Your task to perform on an android device: toggle data saver in the chrome app Image 0: 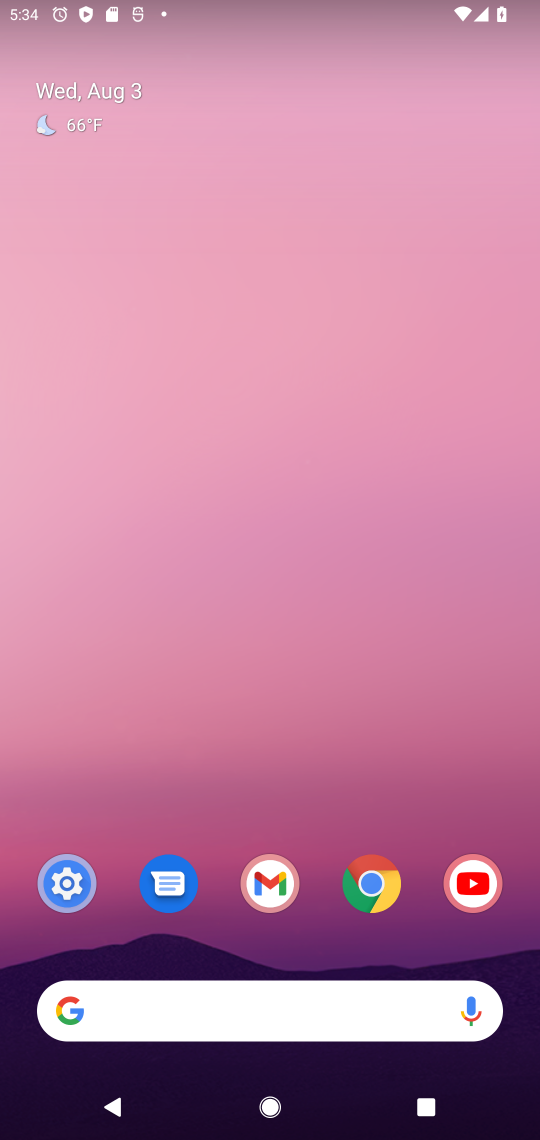
Step 0: click (348, 874)
Your task to perform on an android device: toggle data saver in the chrome app Image 1: 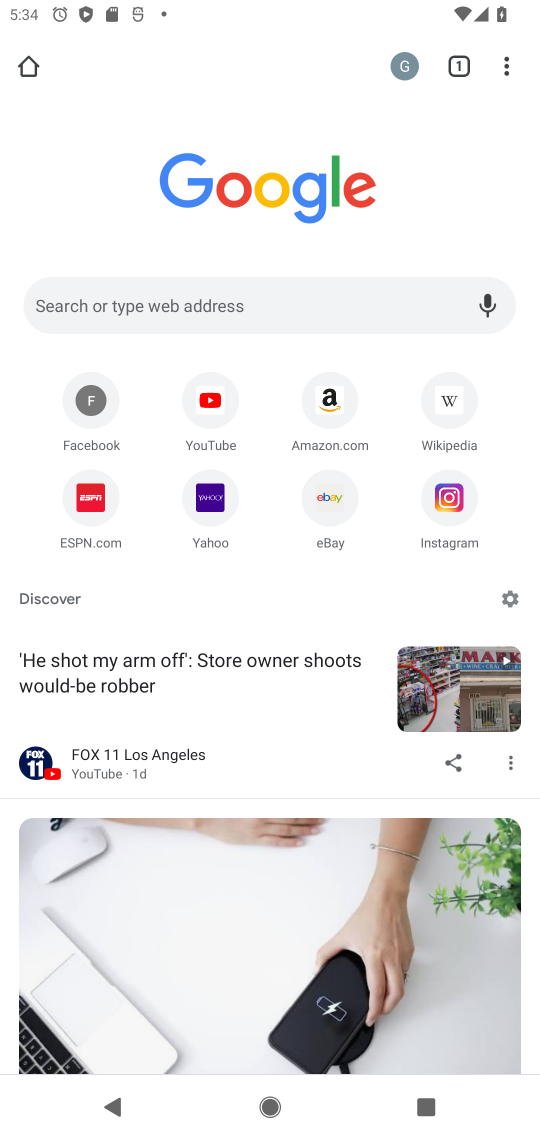
Step 1: click (511, 62)
Your task to perform on an android device: toggle data saver in the chrome app Image 2: 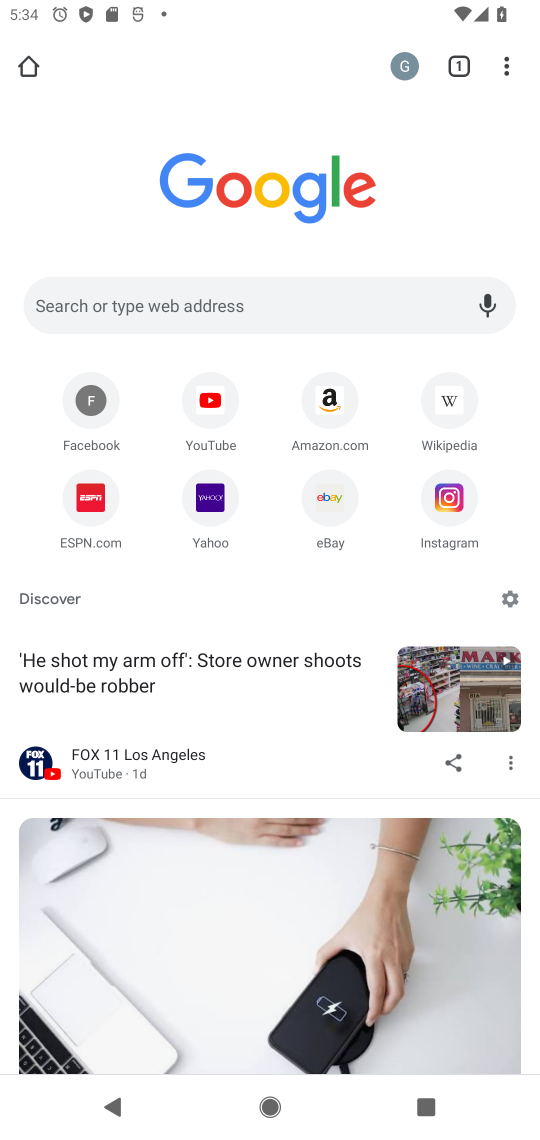
Step 2: click (509, 68)
Your task to perform on an android device: toggle data saver in the chrome app Image 3: 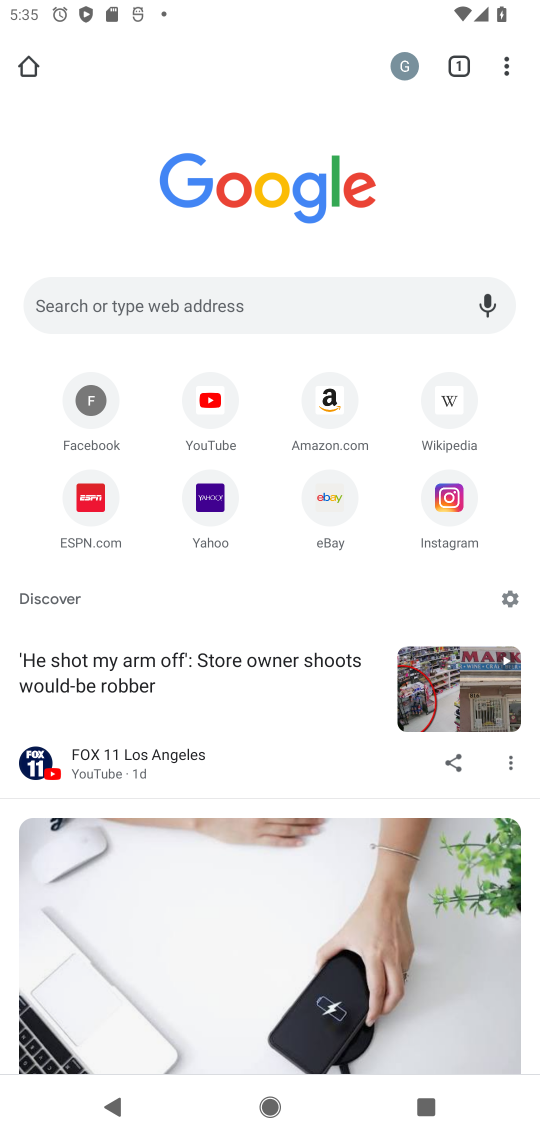
Step 3: click (494, 62)
Your task to perform on an android device: toggle data saver in the chrome app Image 4: 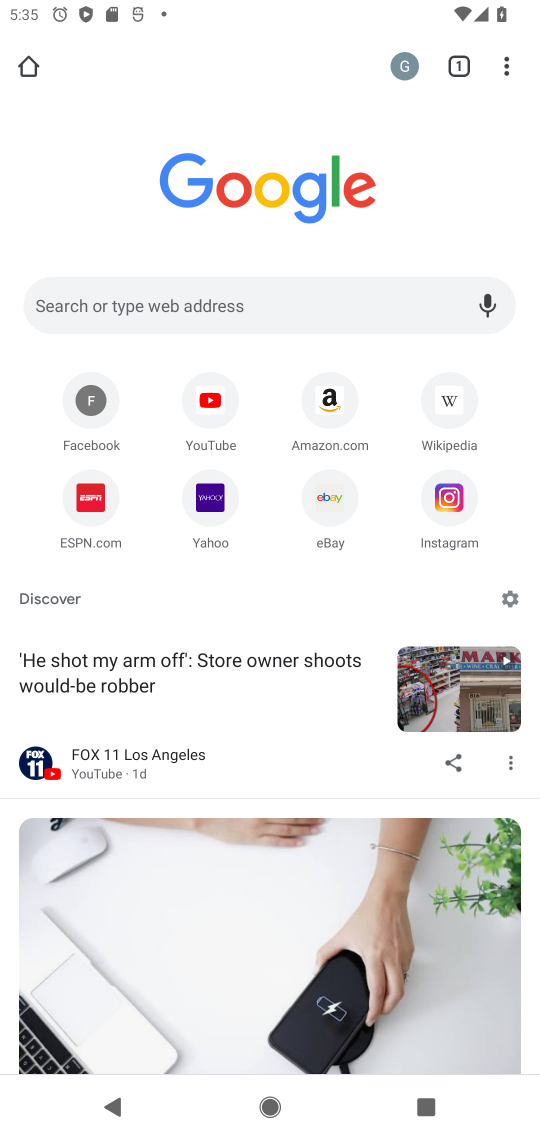
Step 4: click (496, 71)
Your task to perform on an android device: toggle data saver in the chrome app Image 5: 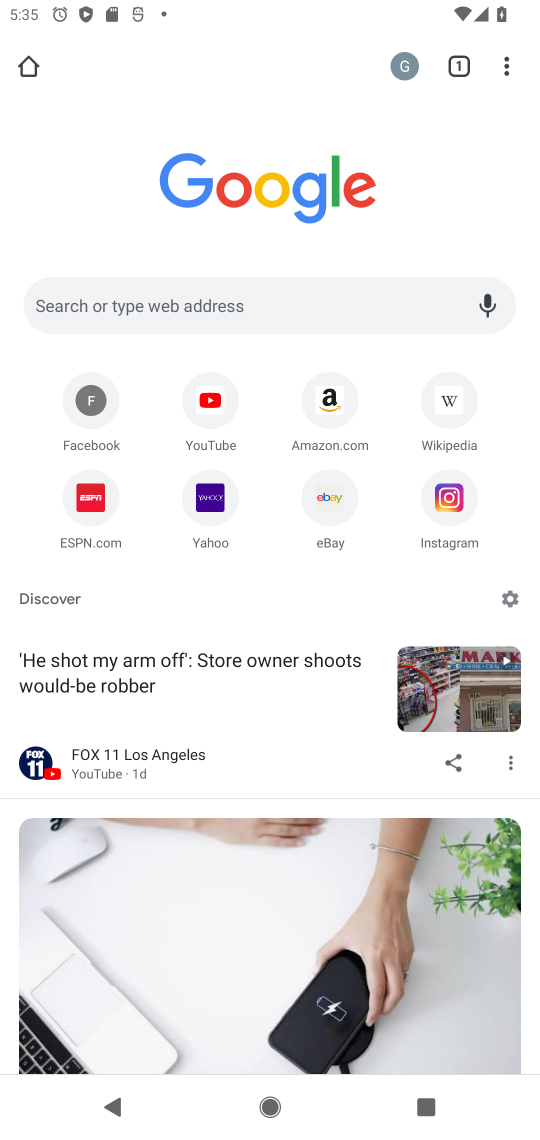
Step 5: click (517, 64)
Your task to perform on an android device: toggle data saver in the chrome app Image 6: 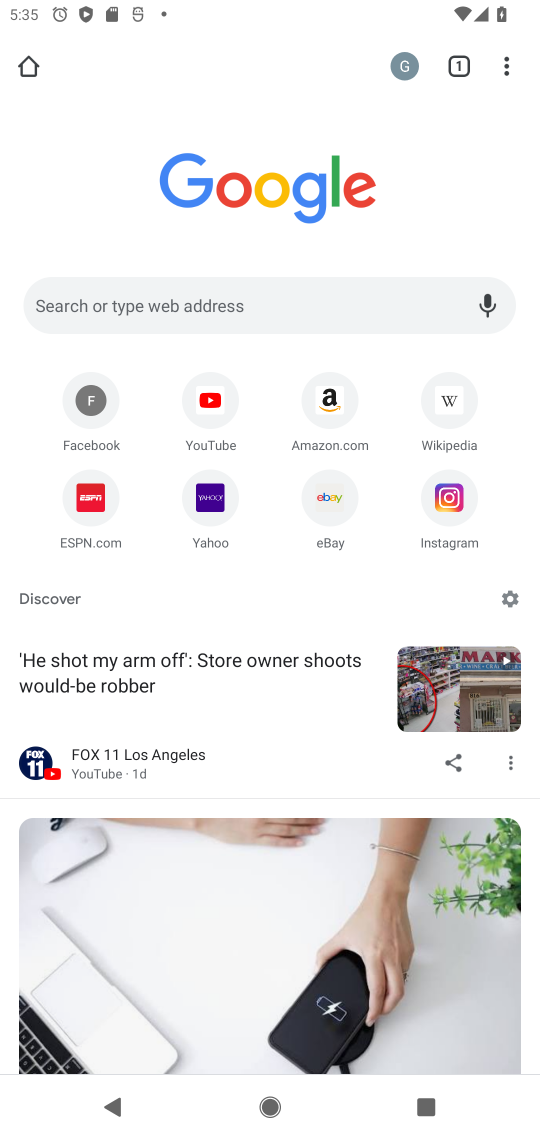
Step 6: click (509, 72)
Your task to perform on an android device: toggle data saver in the chrome app Image 7: 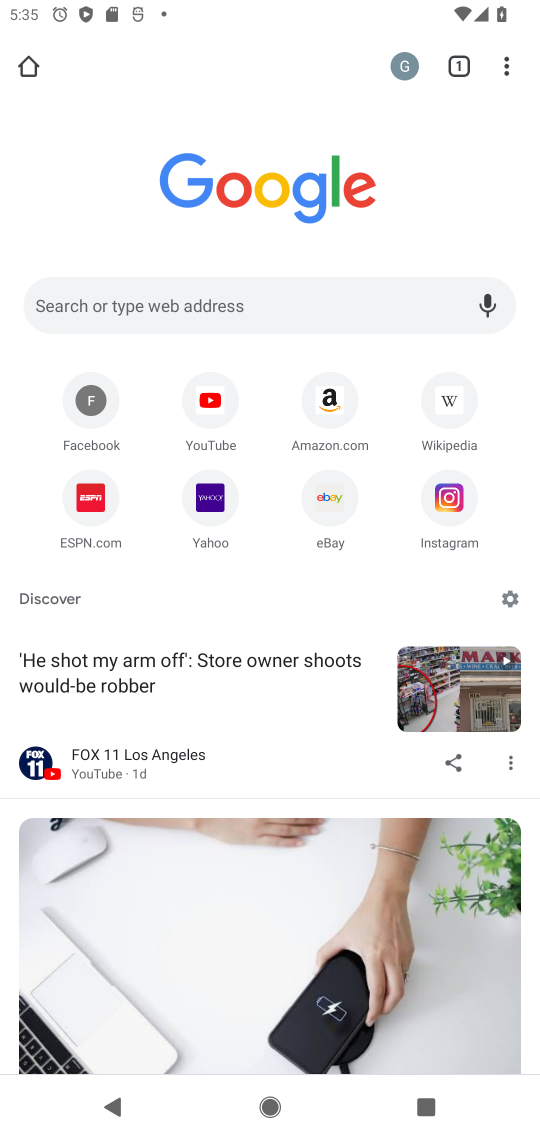
Step 7: click (498, 68)
Your task to perform on an android device: toggle data saver in the chrome app Image 8: 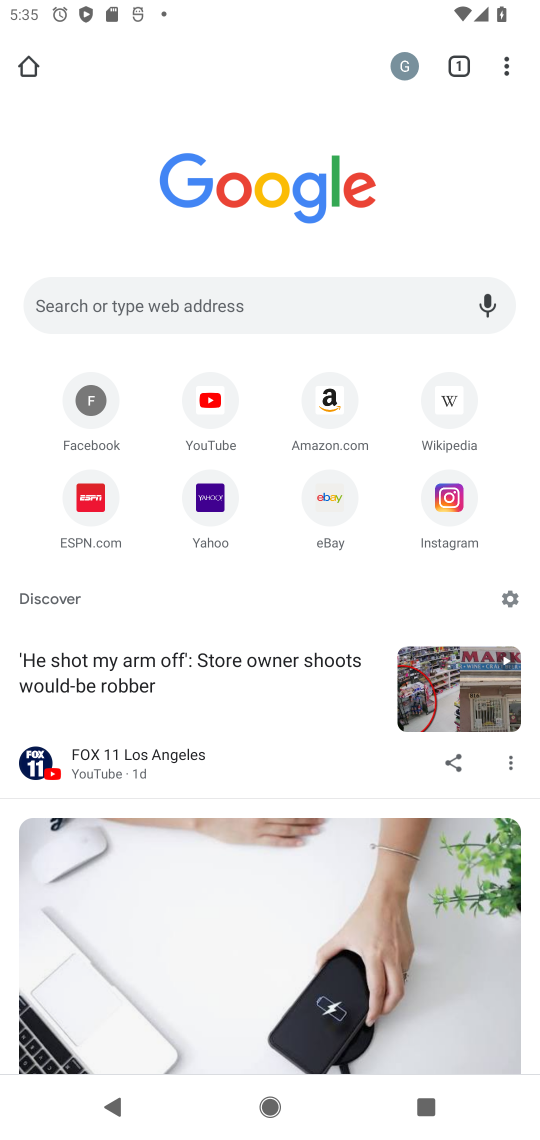
Step 8: click (510, 64)
Your task to perform on an android device: toggle data saver in the chrome app Image 9: 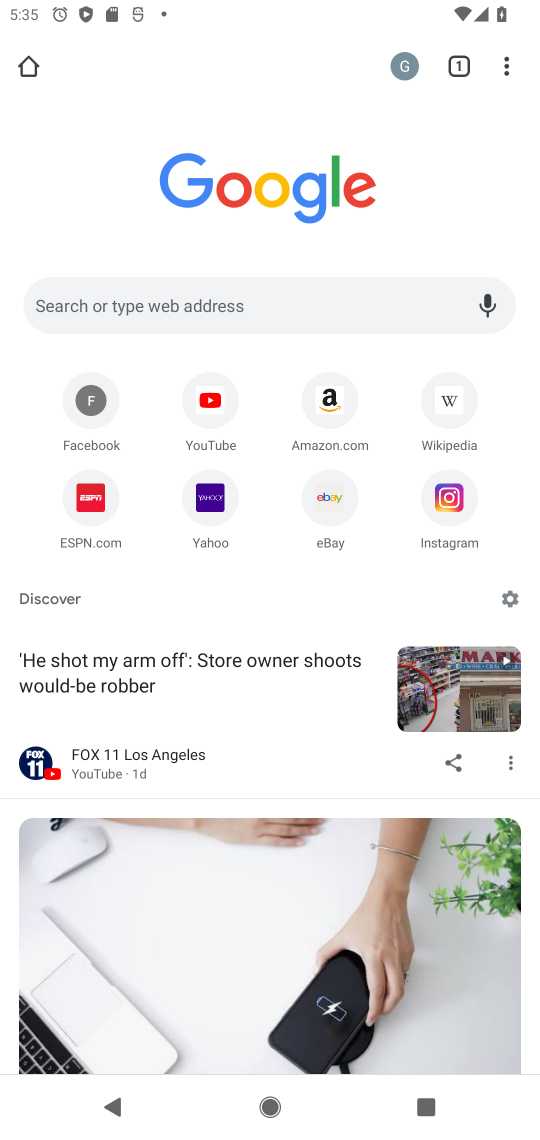
Step 9: click (510, 68)
Your task to perform on an android device: toggle data saver in the chrome app Image 10: 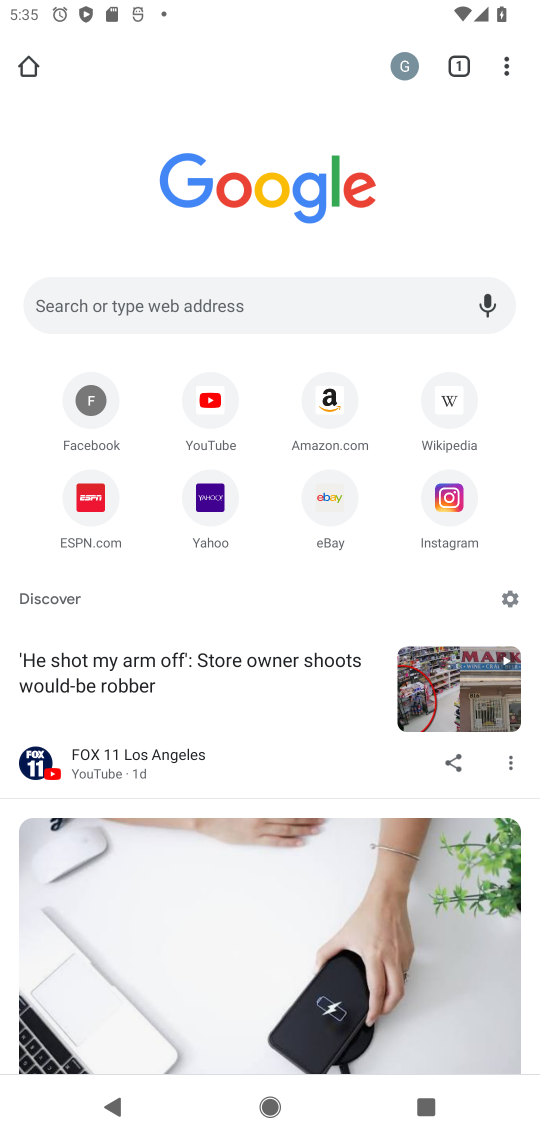
Step 10: click (504, 69)
Your task to perform on an android device: toggle data saver in the chrome app Image 11: 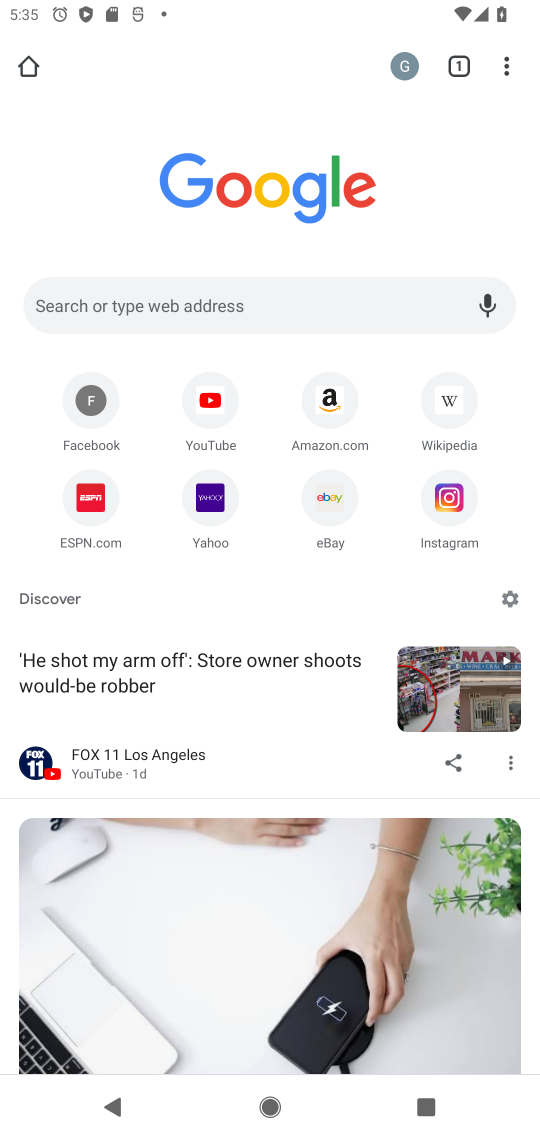
Step 11: click (509, 63)
Your task to perform on an android device: toggle data saver in the chrome app Image 12: 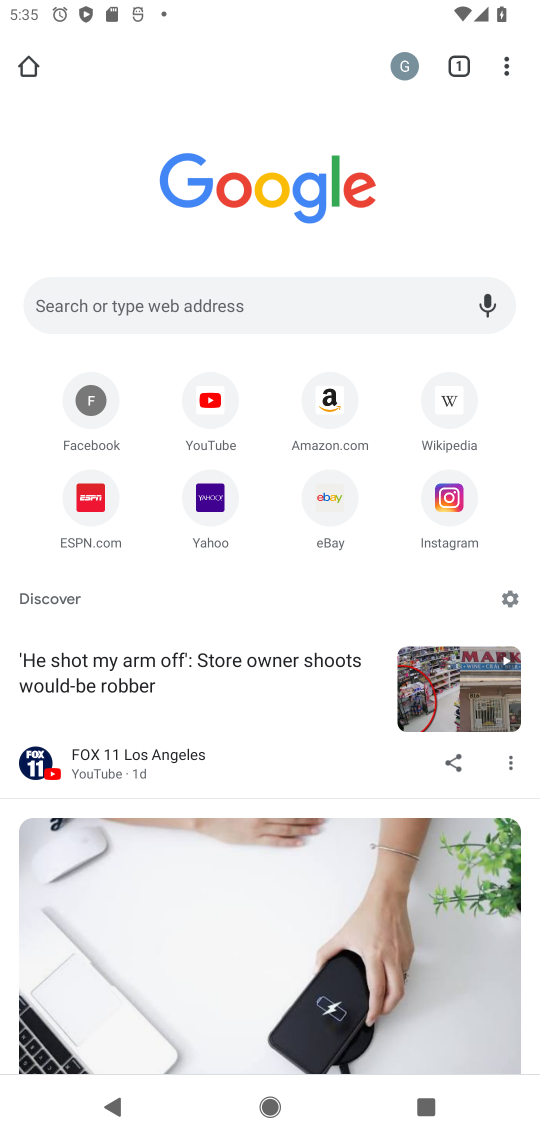
Step 12: click (510, 69)
Your task to perform on an android device: toggle data saver in the chrome app Image 13: 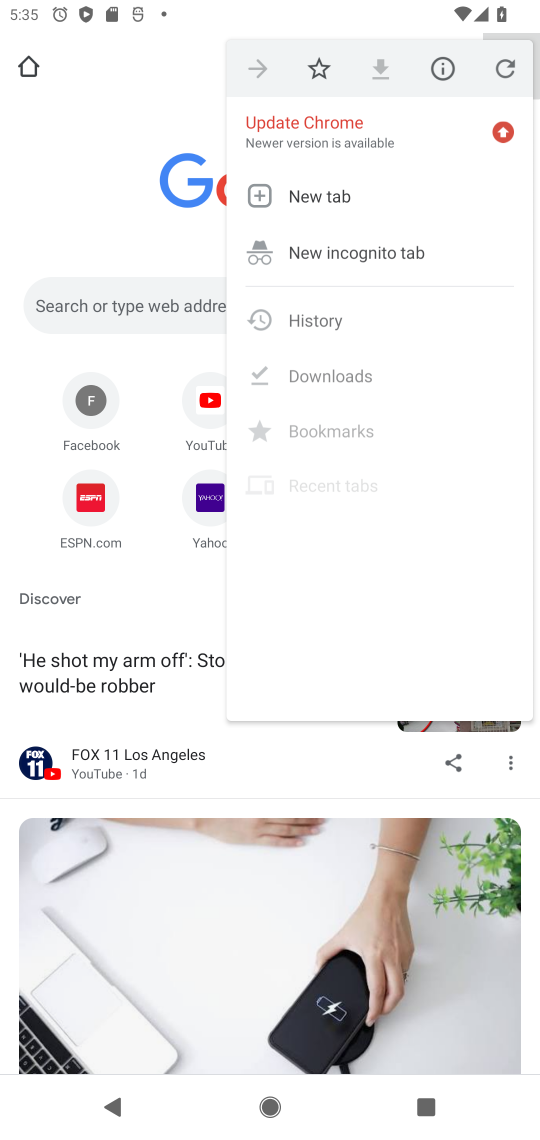
Step 13: click (512, 60)
Your task to perform on an android device: toggle data saver in the chrome app Image 14: 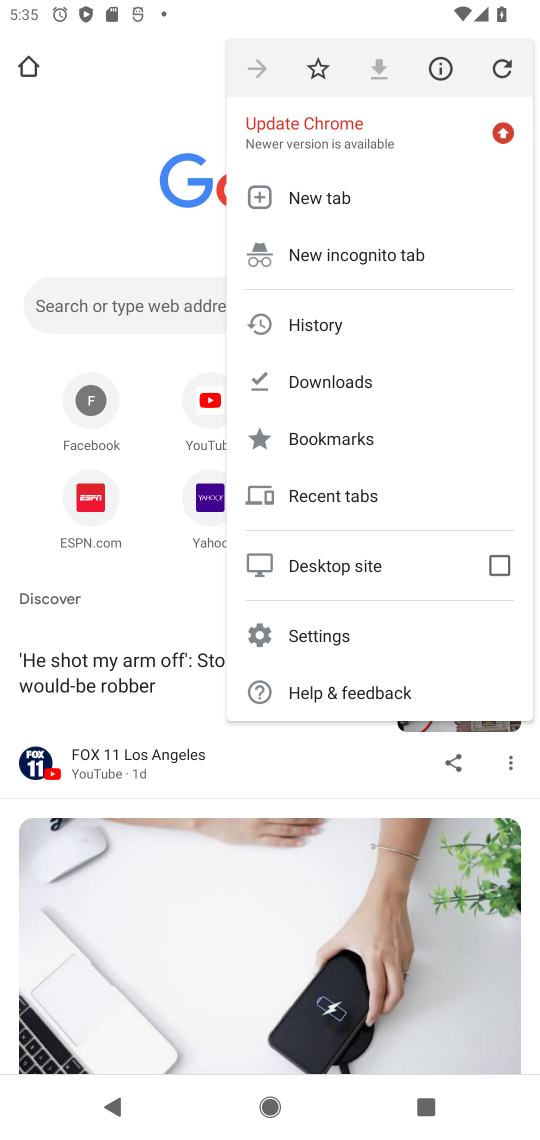
Step 14: click (317, 635)
Your task to perform on an android device: toggle data saver in the chrome app Image 15: 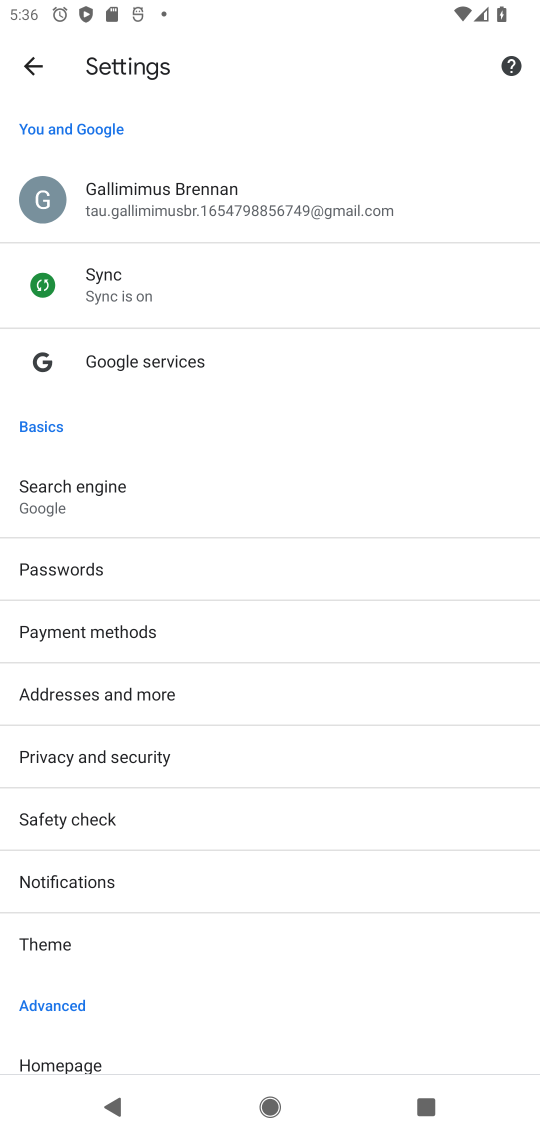
Step 15: drag from (62, 1024) to (179, 445)
Your task to perform on an android device: toggle data saver in the chrome app Image 16: 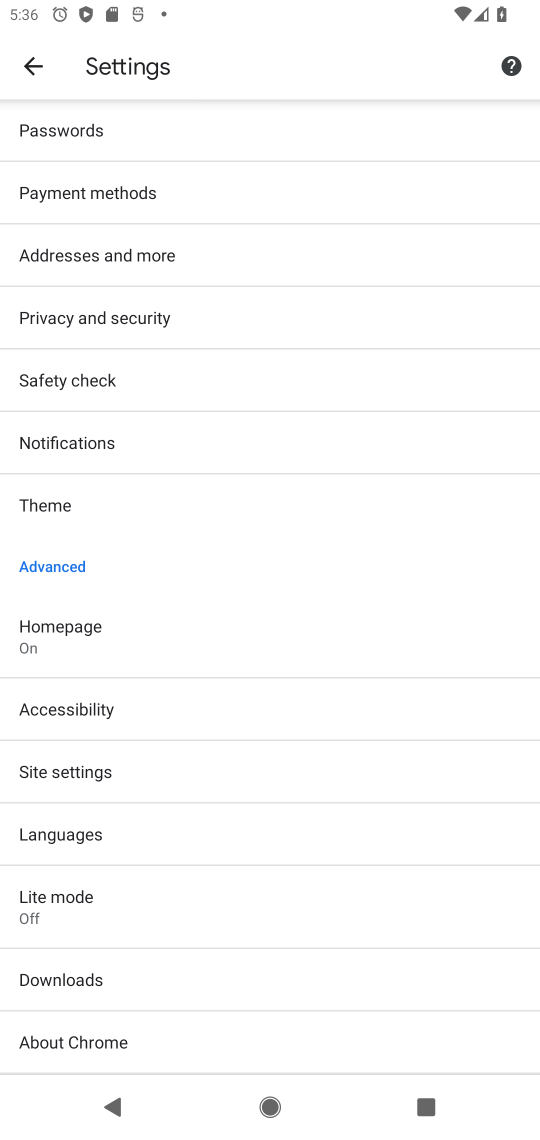
Step 16: click (81, 763)
Your task to perform on an android device: toggle data saver in the chrome app Image 17: 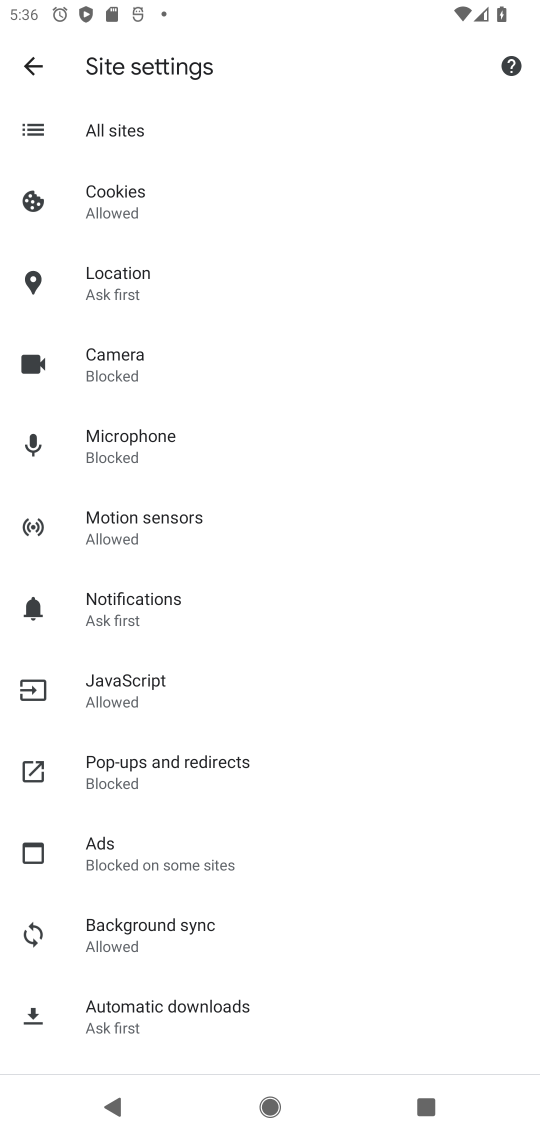
Step 17: click (20, 63)
Your task to perform on an android device: toggle data saver in the chrome app Image 18: 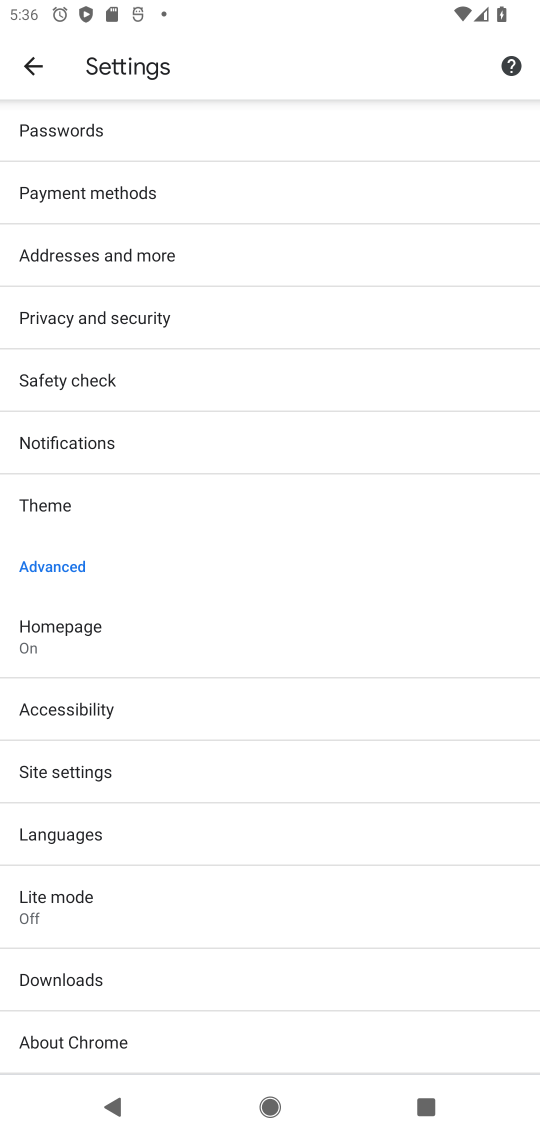
Step 18: click (43, 908)
Your task to perform on an android device: toggle data saver in the chrome app Image 19: 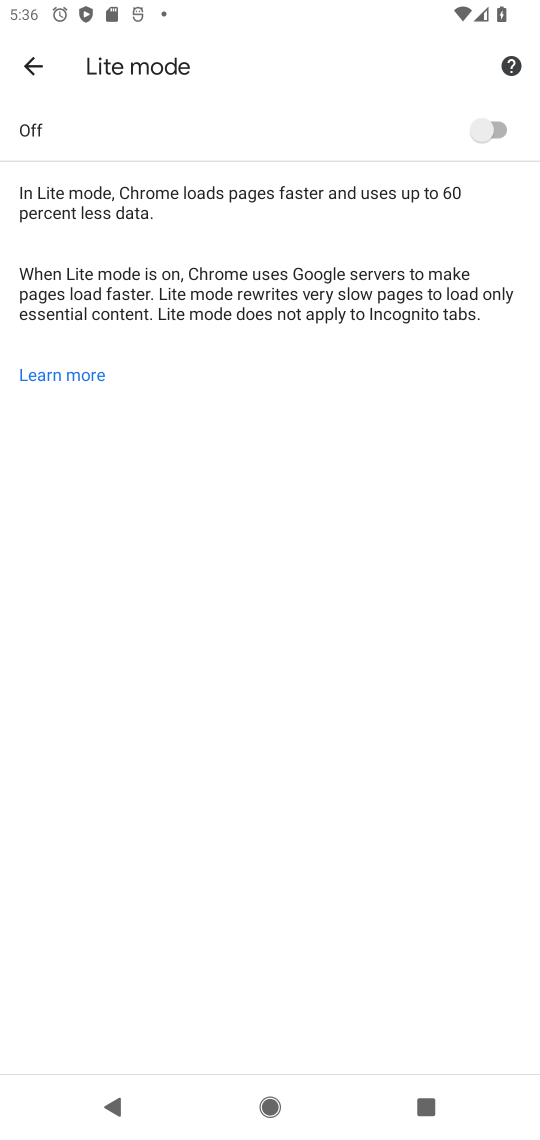
Step 19: click (500, 121)
Your task to perform on an android device: toggle data saver in the chrome app Image 20: 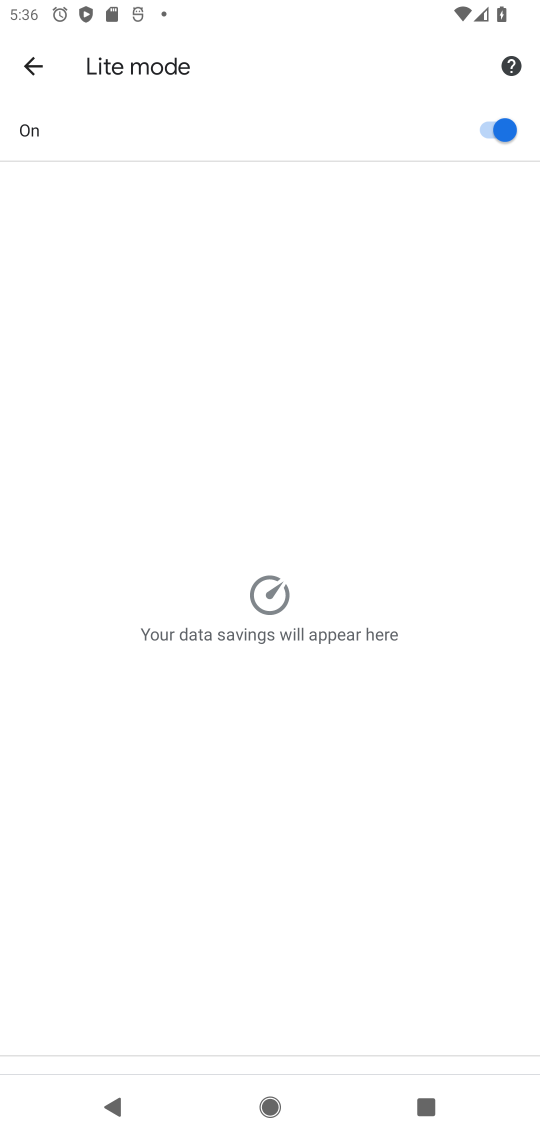
Step 20: task complete